Your task to perform on an android device: Go to Wikipedia Image 0: 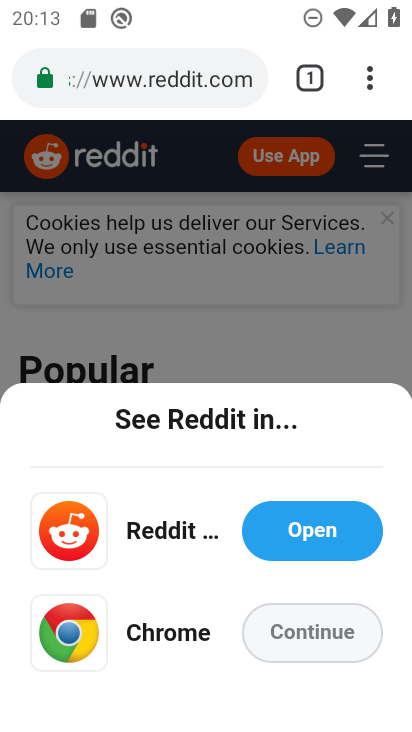
Step 0: press home button
Your task to perform on an android device: Go to Wikipedia Image 1: 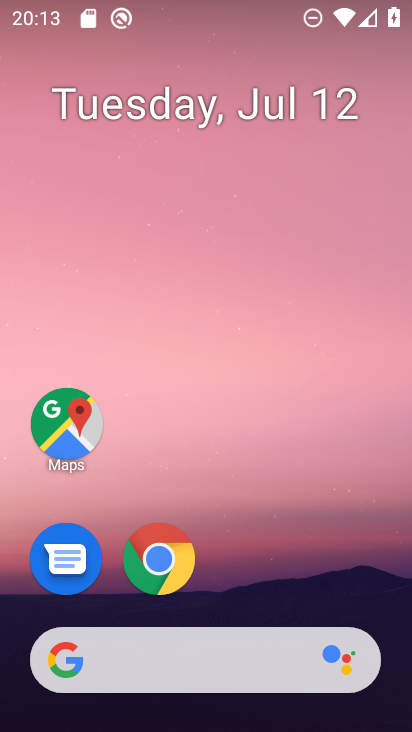
Step 1: drag from (338, 567) to (348, 144)
Your task to perform on an android device: Go to Wikipedia Image 2: 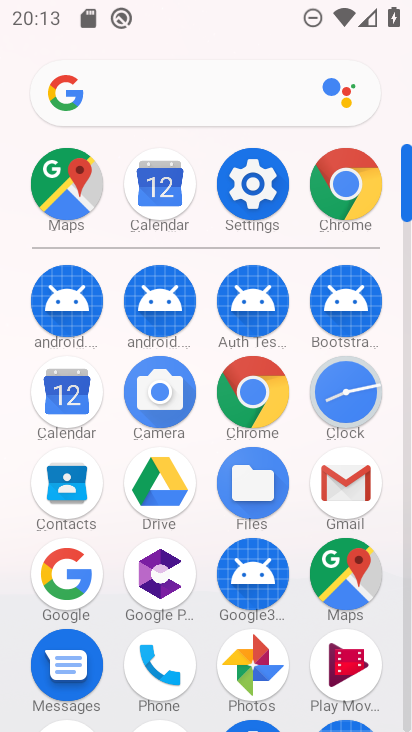
Step 2: click (254, 388)
Your task to perform on an android device: Go to Wikipedia Image 3: 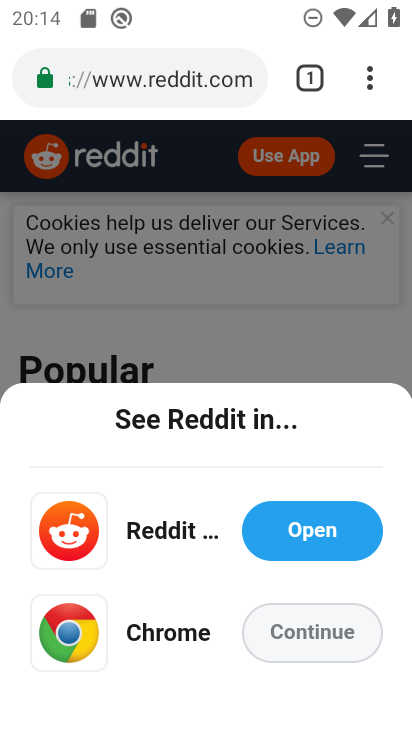
Step 3: click (208, 74)
Your task to perform on an android device: Go to Wikipedia Image 4: 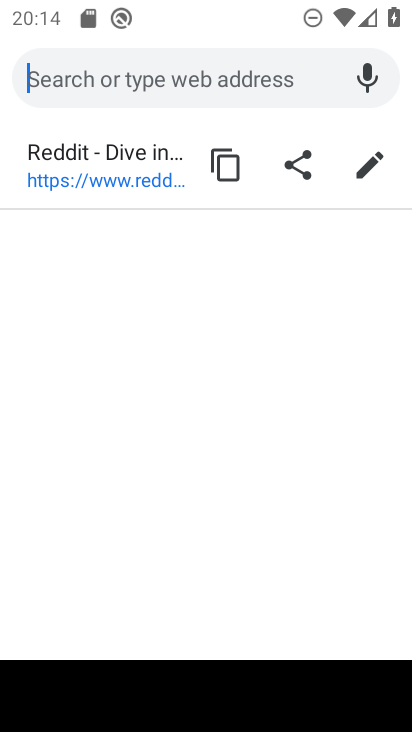
Step 4: type "wikipedia"
Your task to perform on an android device: Go to Wikipedia Image 5: 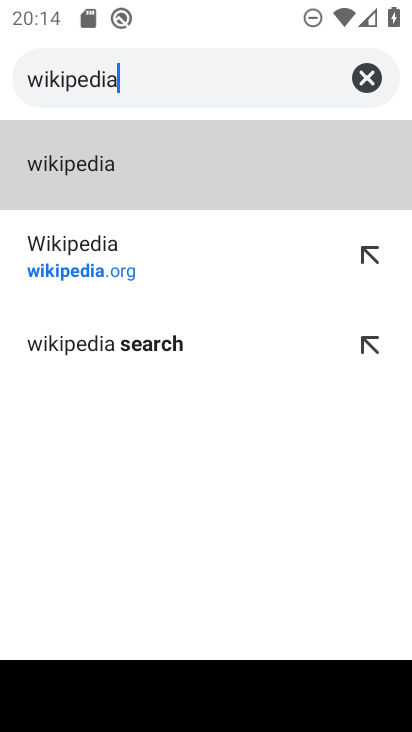
Step 5: click (261, 180)
Your task to perform on an android device: Go to Wikipedia Image 6: 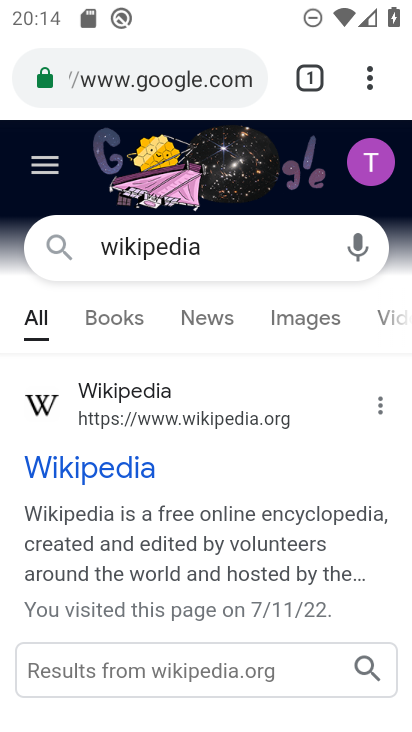
Step 6: task complete